Your task to perform on an android device: turn off sleep mode Image 0: 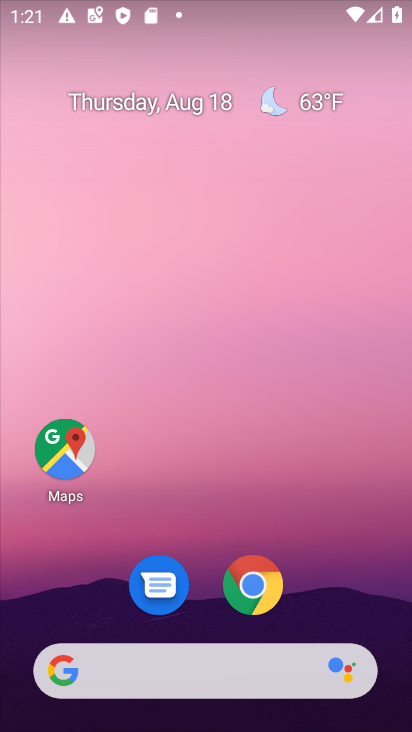
Step 0: drag from (320, 582) to (326, 3)
Your task to perform on an android device: turn off sleep mode Image 1: 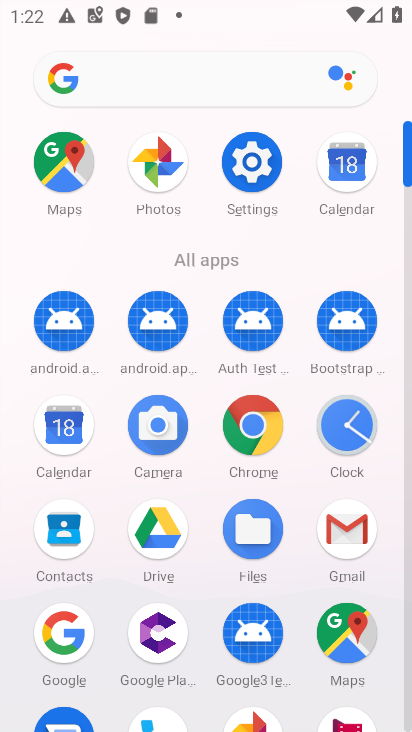
Step 1: click (258, 165)
Your task to perform on an android device: turn off sleep mode Image 2: 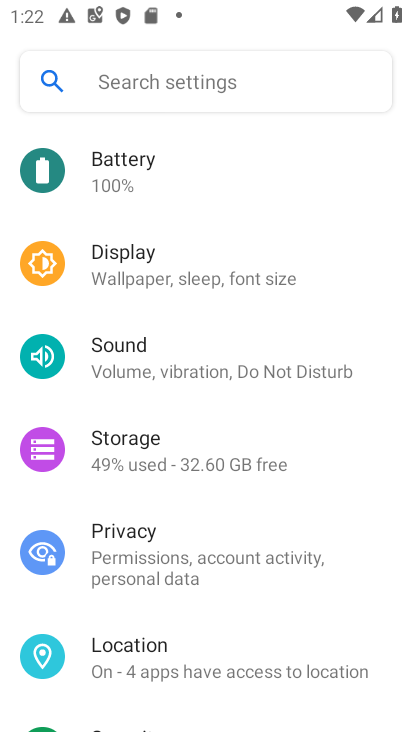
Step 2: click (202, 272)
Your task to perform on an android device: turn off sleep mode Image 3: 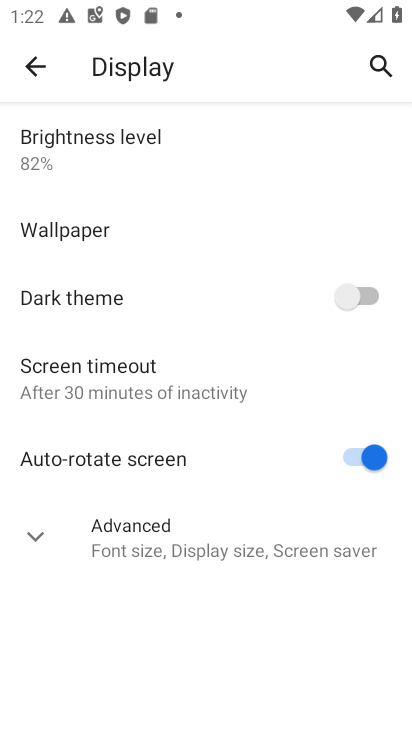
Step 3: click (37, 528)
Your task to perform on an android device: turn off sleep mode Image 4: 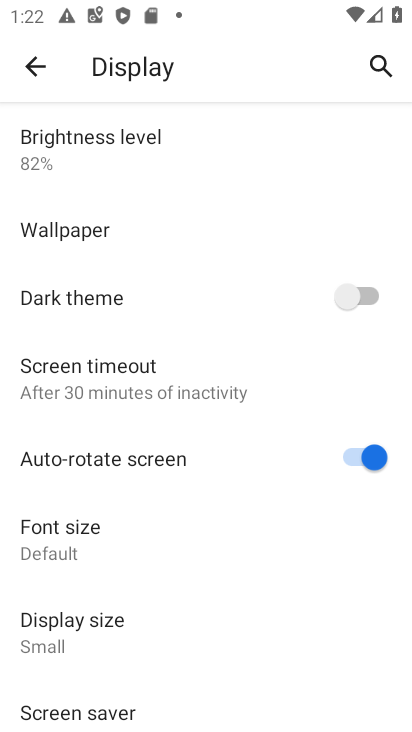
Step 4: task complete